Your task to perform on an android device: turn off location Image 0: 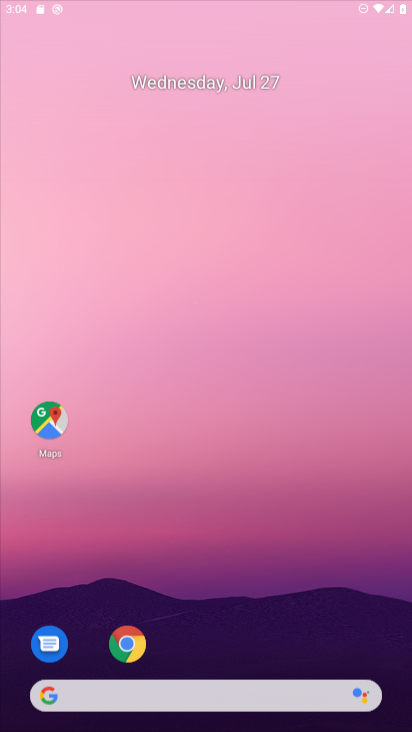
Step 0: drag from (206, 646) to (338, 15)
Your task to perform on an android device: turn off location Image 1: 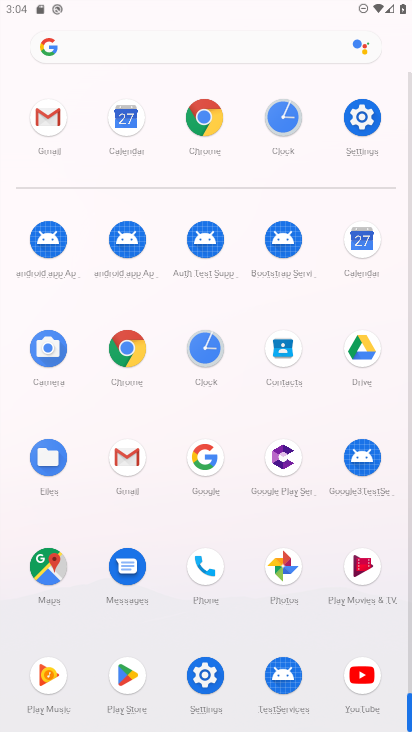
Step 1: click (201, 680)
Your task to perform on an android device: turn off location Image 2: 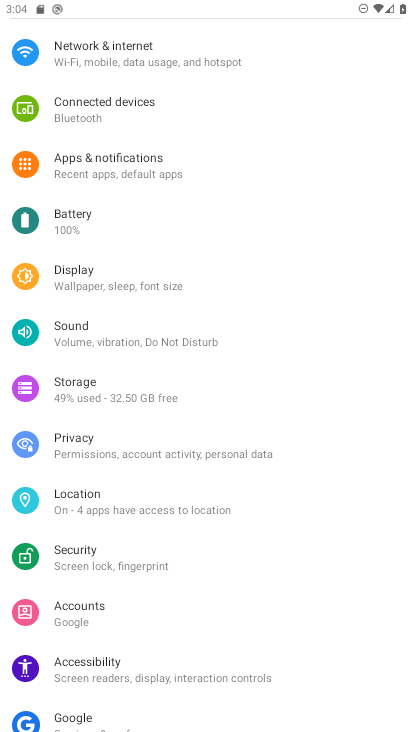
Step 2: click (108, 502)
Your task to perform on an android device: turn off location Image 3: 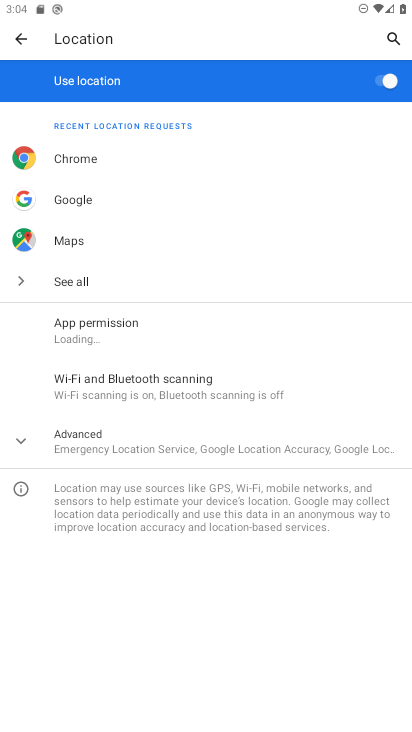
Step 3: click (351, 77)
Your task to perform on an android device: turn off location Image 4: 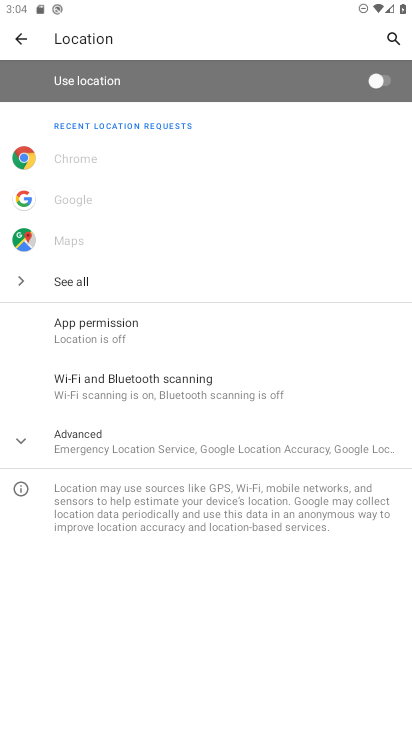
Step 4: task complete